Your task to perform on an android device: turn on translation in the chrome app Image 0: 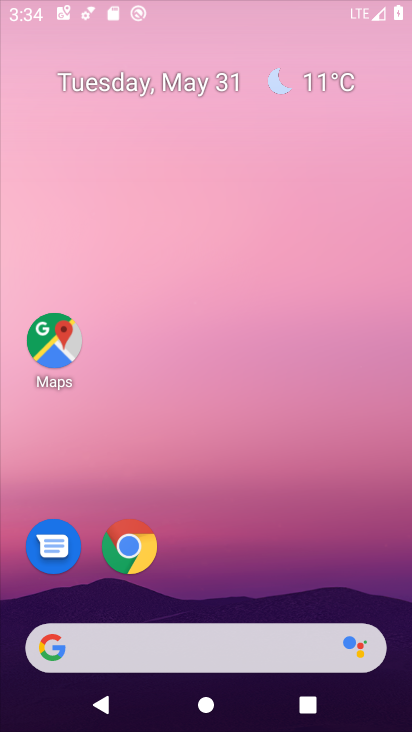
Step 0: drag from (254, 550) to (235, 90)
Your task to perform on an android device: turn on translation in the chrome app Image 1: 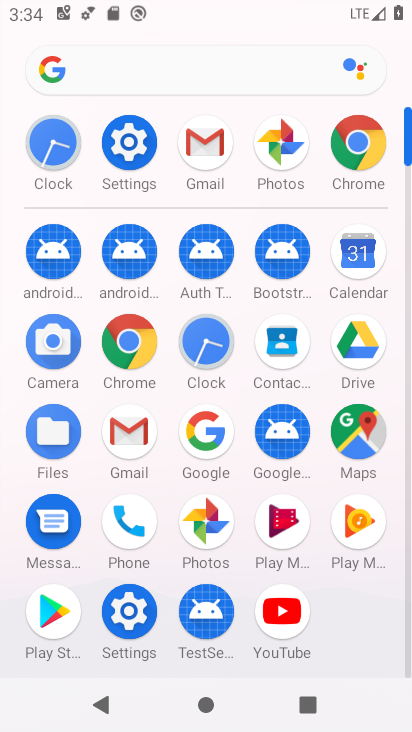
Step 1: click (141, 348)
Your task to perform on an android device: turn on translation in the chrome app Image 2: 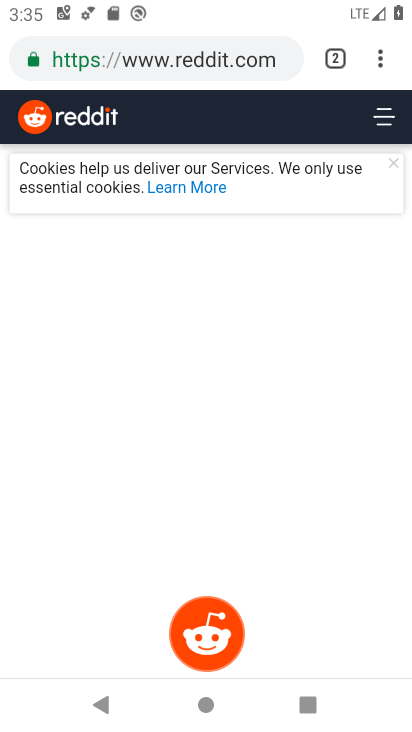
Step 2: click (380, 52)
Your task to perform on an android device: turn on translation in the chrome app Image 3: 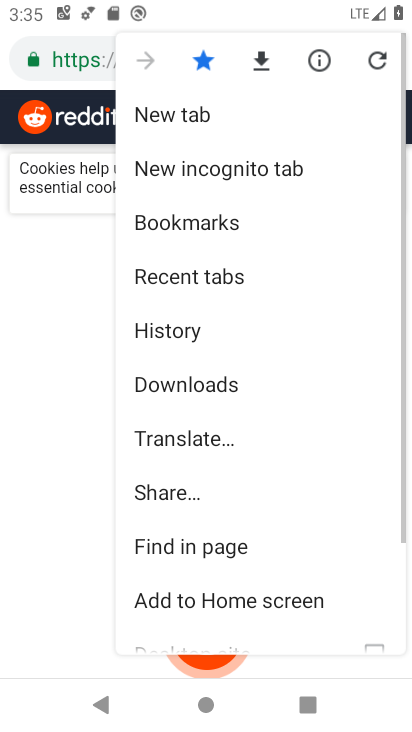
Step 3: drag from (301, 485) to (245, 132)
Your task to perform on an android device: turn on translation in the chrome app Image 4: 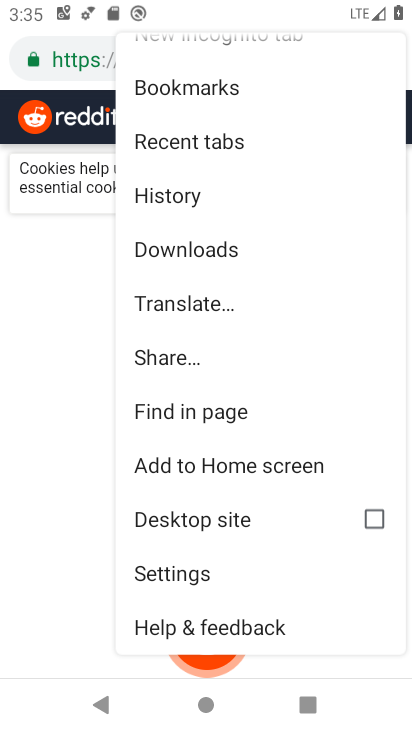
Step 4: click (194, 562)
Your task to perform on an android device: turn on translation in the chrome app Image 5: 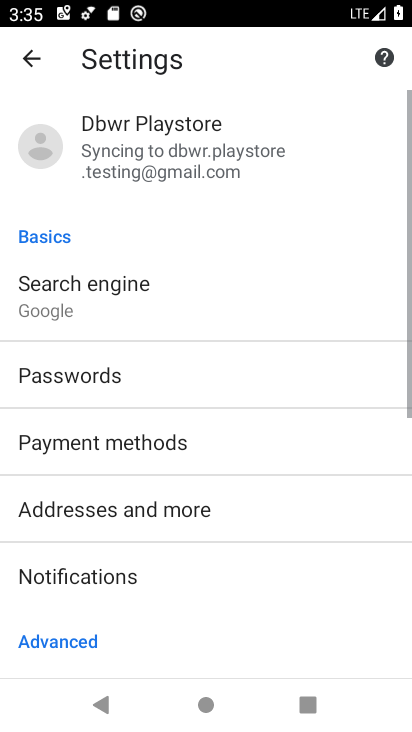
Step 5: drag from (204, 541) to (186, 232)
Your task to perform on an android device: turn on translation in the chrome app Image 6: 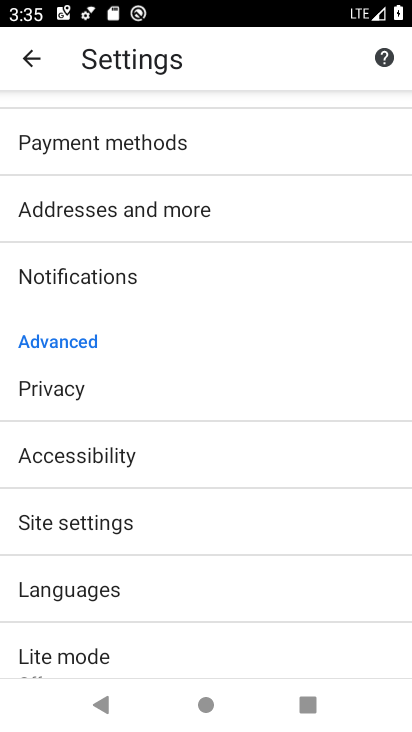
Step 6: click (142, 589)
Your task to perform on an android device: turn on translation in the chrome app Image 7: 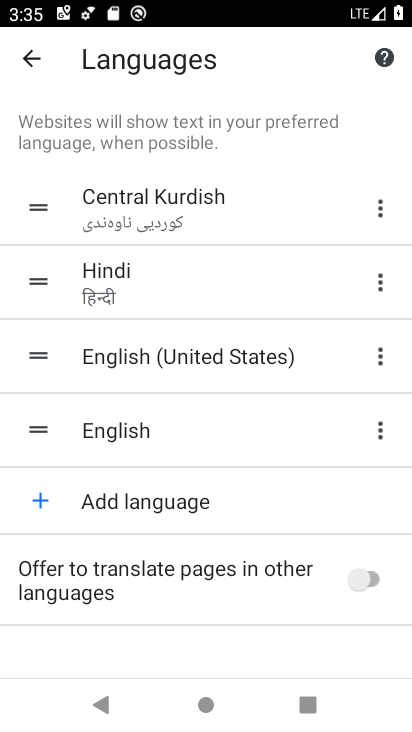
Step 7: drag from (240, 490) to (241, 79)
Your task to perform on an android device: turn on translation in the chrome app Image 8: 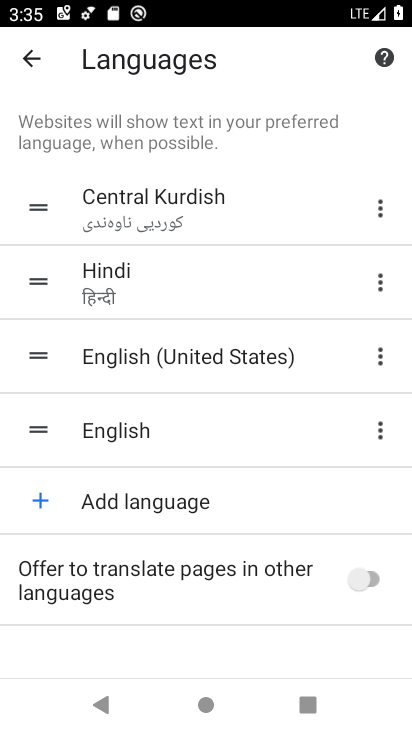
Step 8: click (361, 586)
Your task to perform on an android device: turn on translation in the chrome app Image 9: 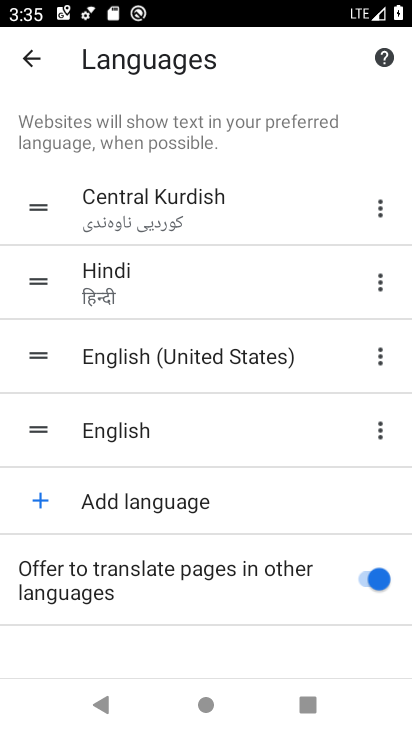
Step 9: task complete